Your task to perform on an android device: toggle data saver in the chrome app Image 0: 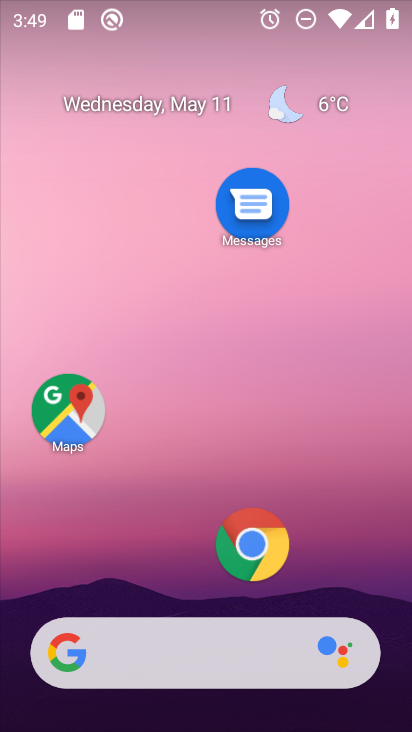
Step 0: click (244, 544)
Your task to perform on an android device: toggle data saver in the chrome app Image 1: 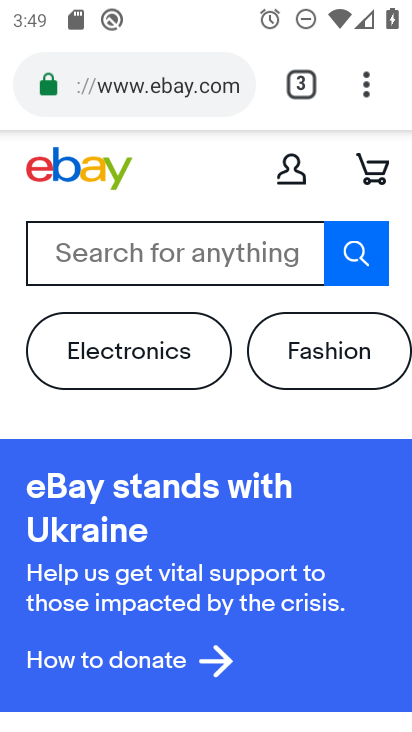
Step 1: drag from (366, 81) to (89, 582)
Your task to perform on an android device: toggle data saver in the chrome app Image 2: 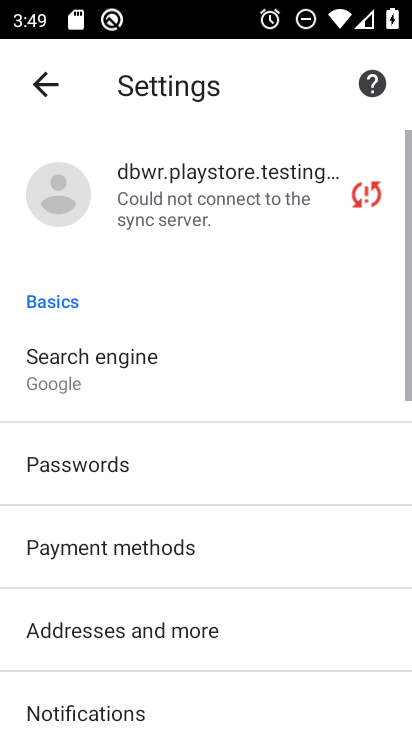
Step 2: drag from (97, 638) to (261, 191)
Your task to perform on an android device: toggle data saver in the chrome app Image 3: 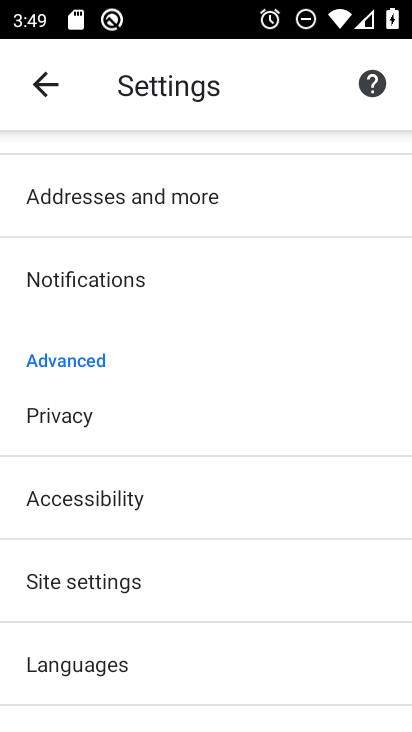
Step 3: drag from (90, 679) to (244, 170)
Your task to perform on an android device: toggle data saver in the chrome app Image 4: 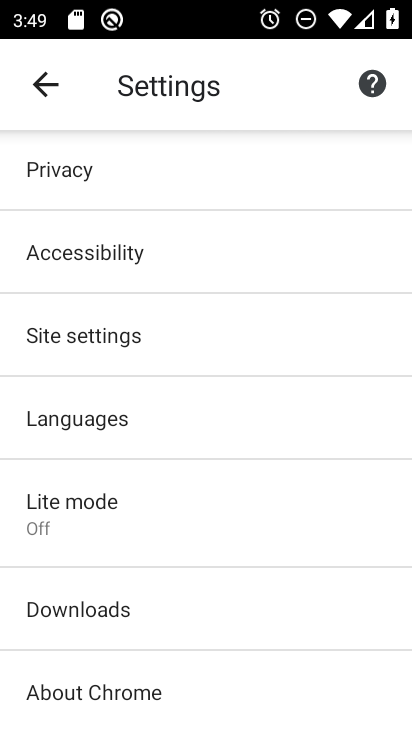
Step 4: click (89, 541)
Your task to perform on an android device: toggle data saver in the chrome app Image 5: 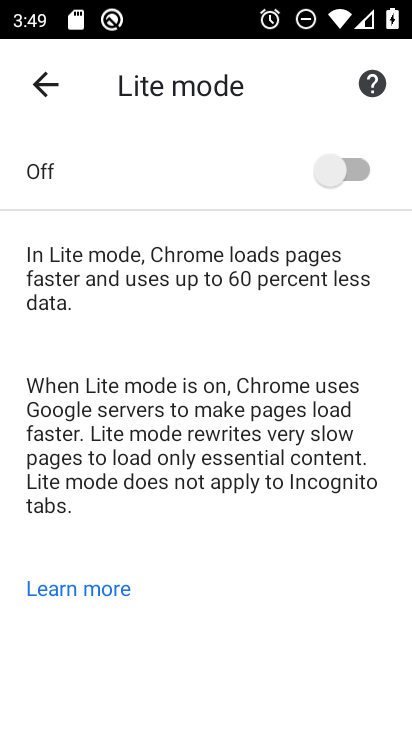
Step 5: click (342, 175)
Your task to perform on an android device: toggle data saver in the chrome app Image 6: 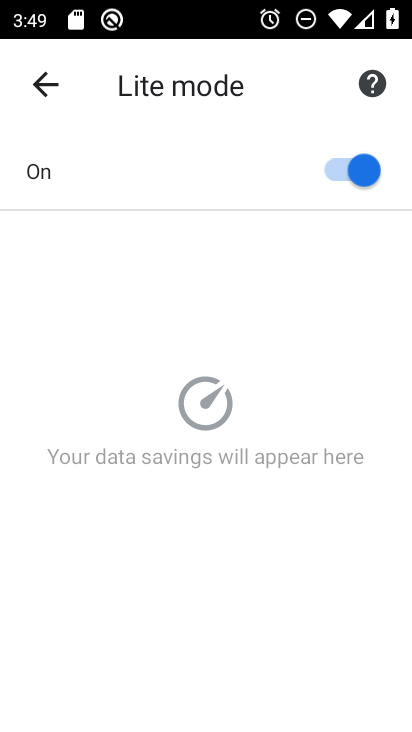
Step 6: task complete